Your task to perform on an android device: turn on the 12-hour format for clock Image 0: 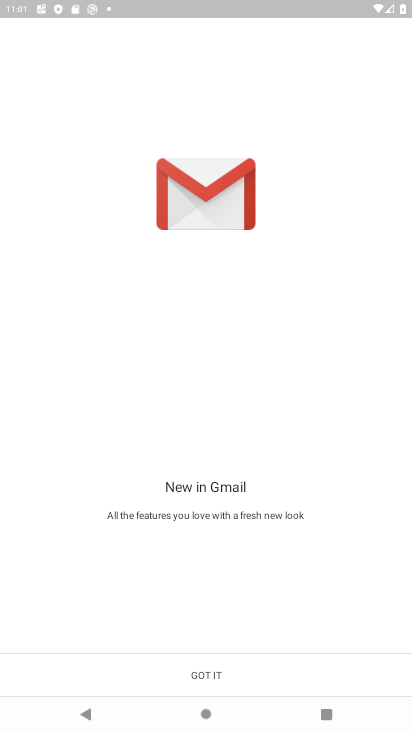
Step 0: click (208, 659)
Your task to perform on an android device: turn on the 12-hour format for clock Image 1: 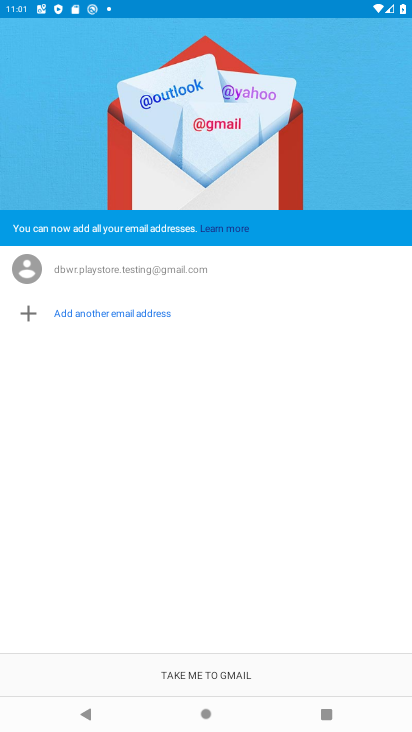
Step 1: press home button
Your task to perform on an android device: turn on the 12-hour format for clock Image 2: 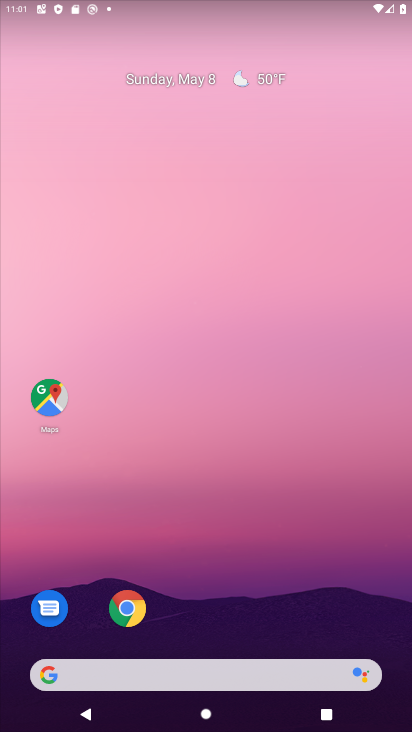
Step 2: drag from (238, 600) to (137, 71)
Your task to perform on an android device: turn on the 12-hour format for clock Image 3: 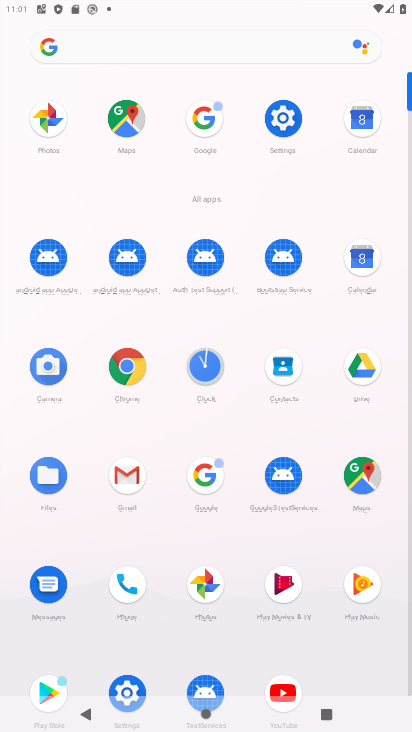
Step 3: click (210, 376)
Your task to perform on an android device: turn on the 12-hour format for clock Image 4: 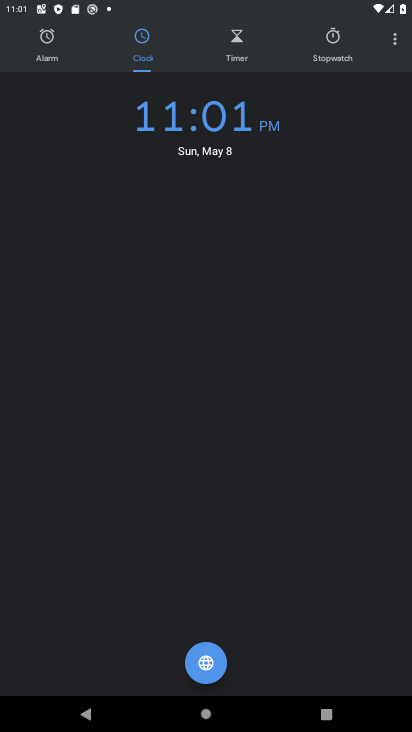
Step 4: click (394, 57)
Your task to perform on an android device: turn on the 12-hour format for clock Image 5: 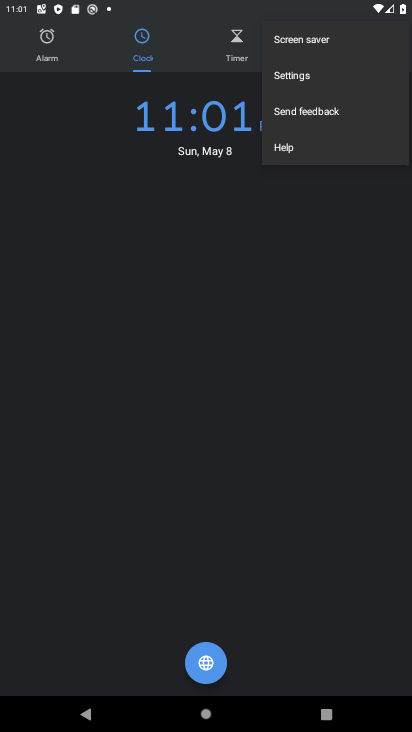
Step 5: click (322, 97)
Your task to perform on an android device: turn on the 12-hour format for clock Image 6: 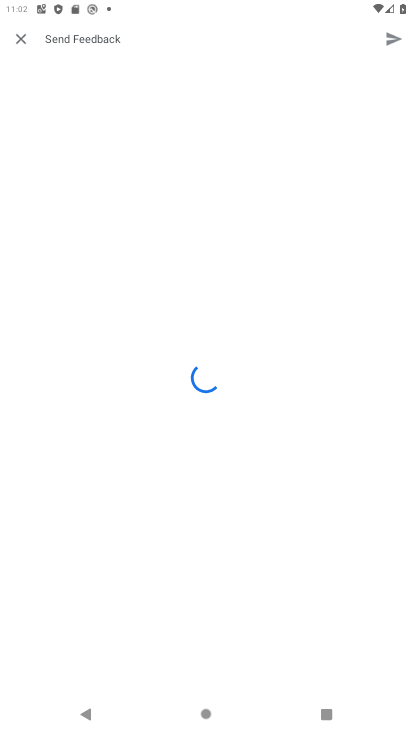
Step 6: click (12, 48)
Your task to perform on an android device: turn on the 12-hour format for clock Image 7: 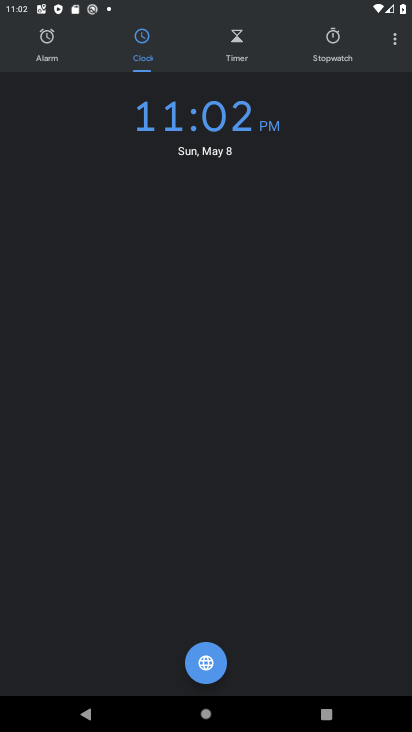
Step 7: click (384, 47)
Your task to perform on an android device: turn on the 12-hour format for clock Image 8: 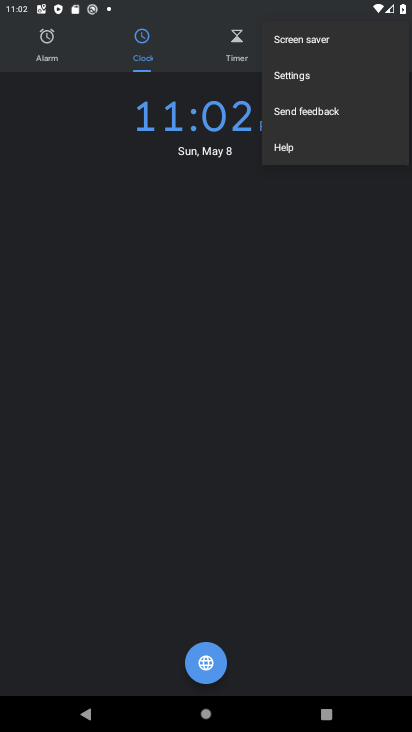
Step 8: click (314, 81)
Your task to perform on an android device: turn on the 12-hour format for clock Image 9: 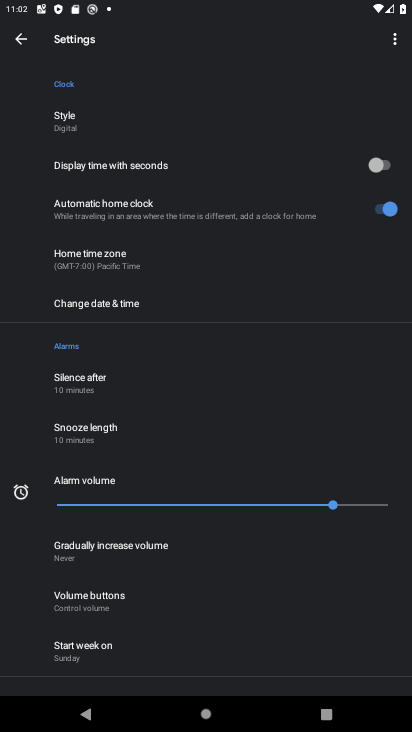
Step 9: click (136, 303)
Your task to perform on an android device: turn on the 12-hour format for clock Image 10: 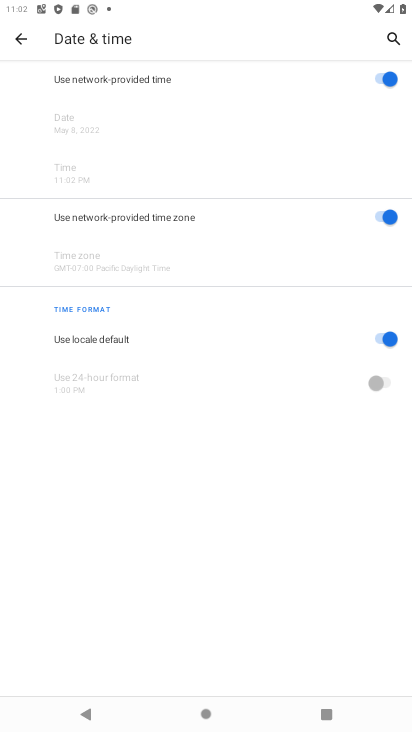
Step 10: task complete